Your task to perform on an android device: check battery use Image 0: 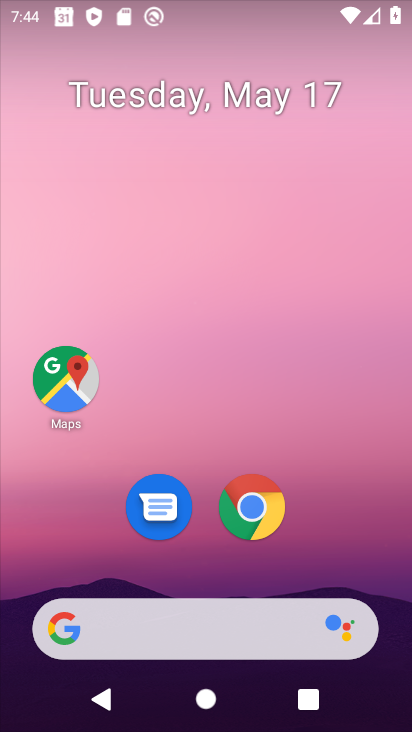
Step 0: drag from (394, 572) to (327, 56)
Your task to perform on an android device: check battery use Image 1: 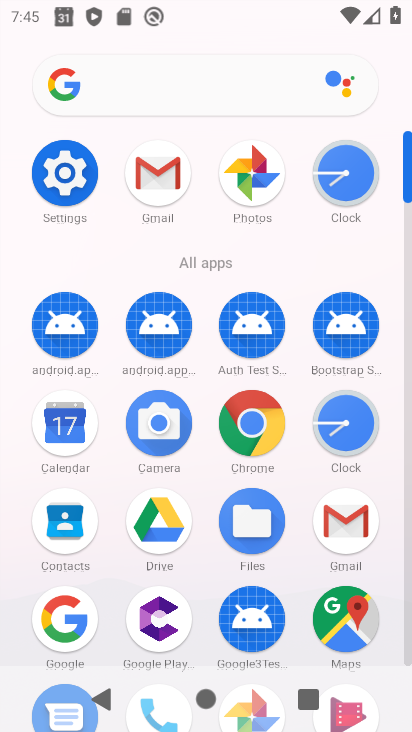
Step 1: click (66, 178)
Your task to perform on an android device: check battery use Image 2: 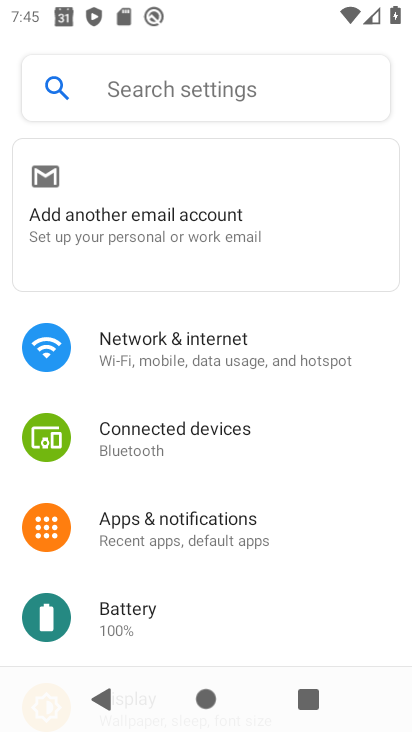
Step 2: click (119, 609)
Your task to perform on an android device: check battery use Image 3: 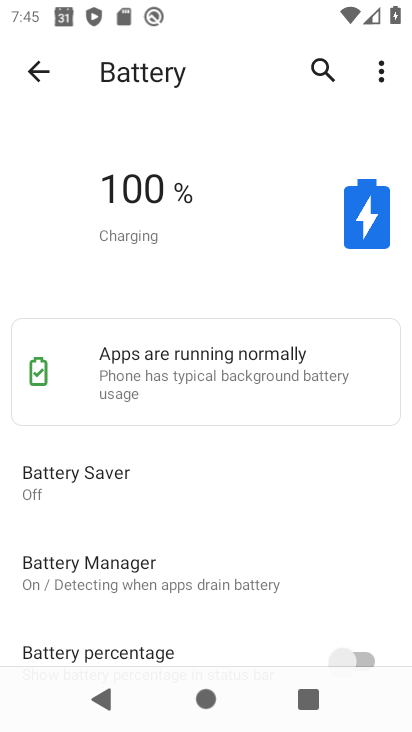
Step 3: click (383, 72)
Your task to perform on an android device: check battery use Image 4: 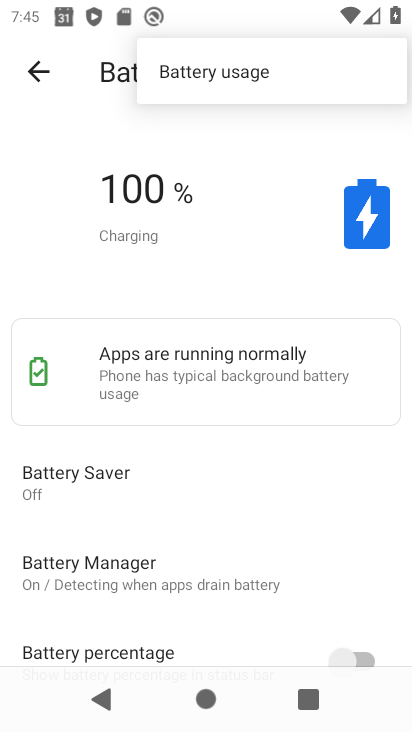
Step 4: click (213, 77)
Your task to perform on an android device: check battery use Image 5: 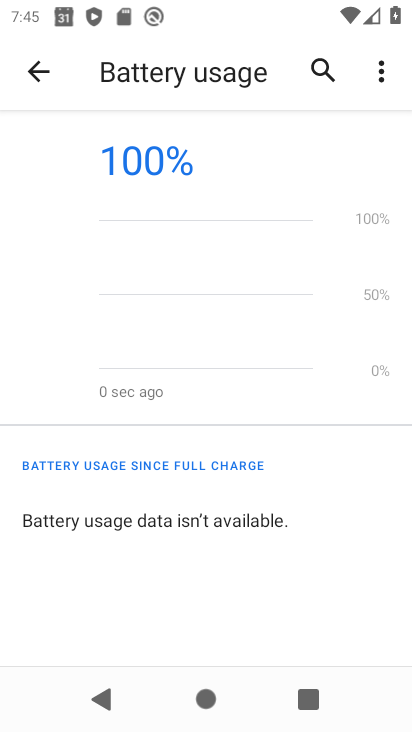
Step 5: task complete